Your task to perform on an android device: toggle show notifications on the lock screen Image 0: 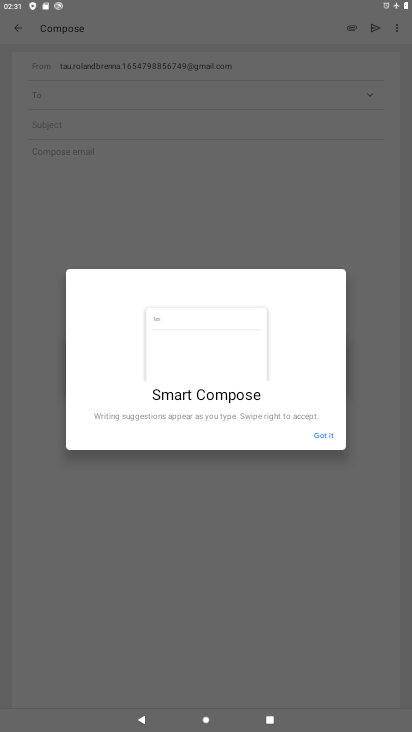
Step 0: press home button
Your task to perform on an android device: toggle show notifications on the lock screen Image 1: 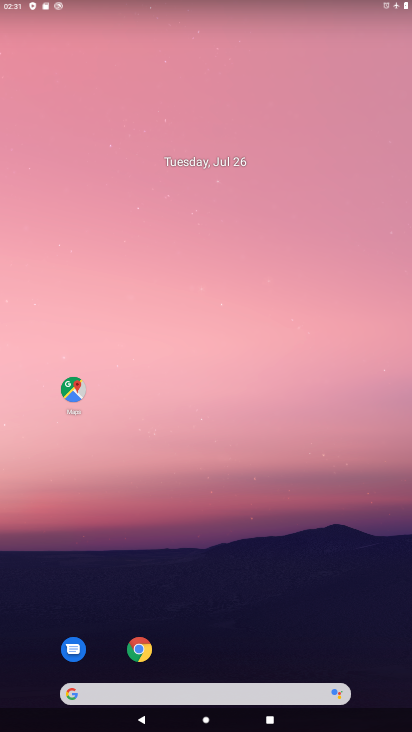
Step 1: drag from (191, 696) to (284, 10)
Your task to perform on an android device: toggle show notifications on the lock screen Image 2: 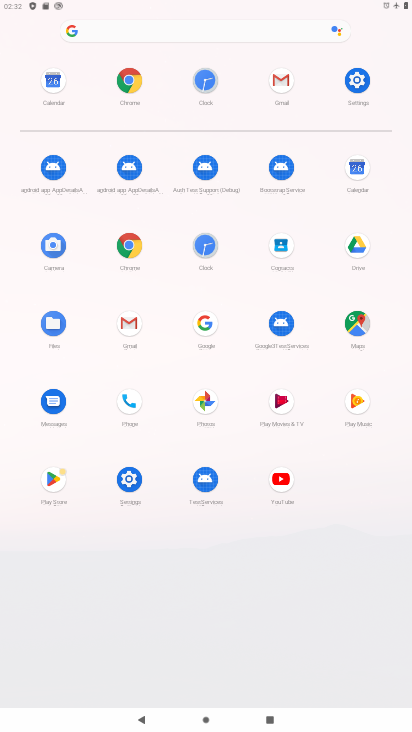
Step 2: click (357, 80)
Your task to perform on an android device: toggle show notifications on the lock screen Image 3: 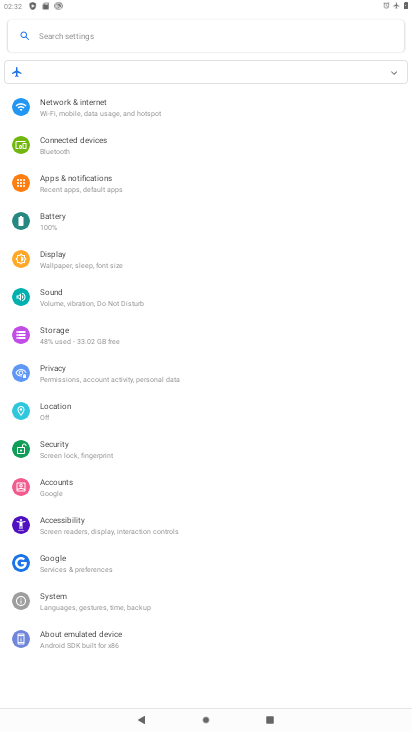
Step 3: click (84, 187)
Your task to perform on an android device: toggle show notifications on the lock screen Image 4: 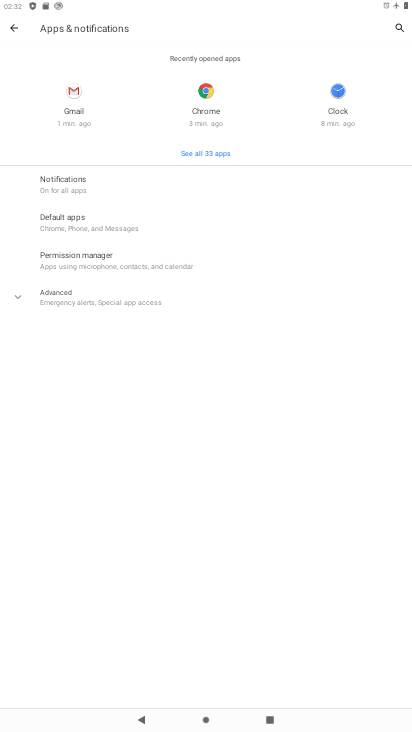
Step 4: click (74, 182)
Your task to perform on an android device: toggle show notifications on the lock screen Image 5: 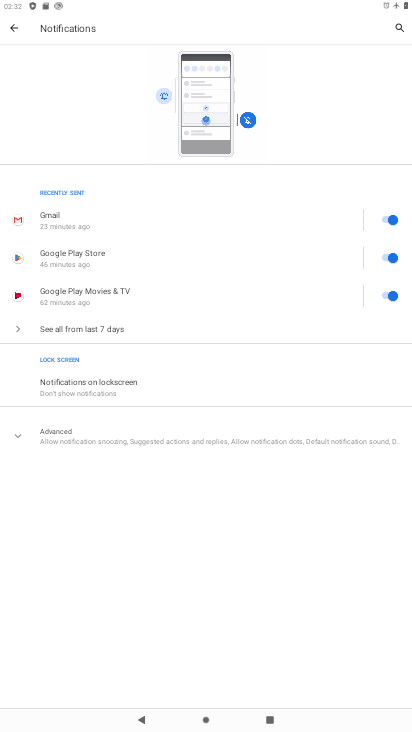
Step 5: click (87, 390)
Your task to perform on an android device: toggle show notifications on the lock screen Image 6: 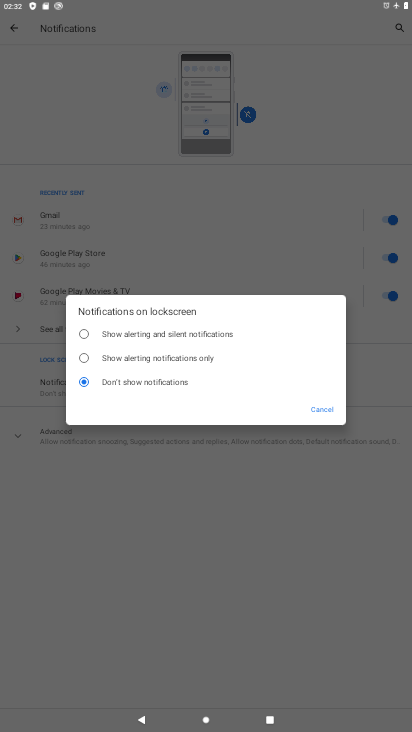
Step 6: click (81, 335)
Your task to perform on an android device: toggle show notifications on the lock screen Image 7: 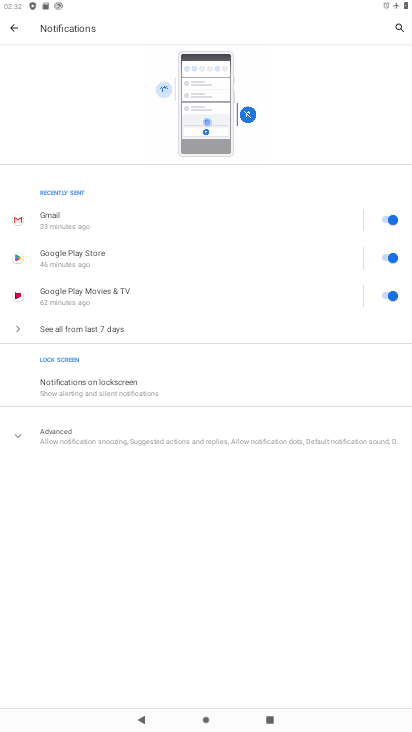
Step 7: task complete